Your task to perform on an android device: Go to Google maps Image 0: 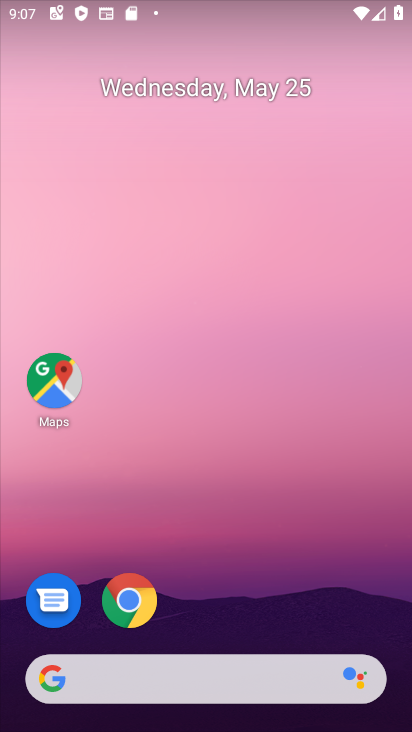
Step 0: drag from (276, 608) to (234, 46)
Your task to perform on an android device: Go to Google maps Image 1: 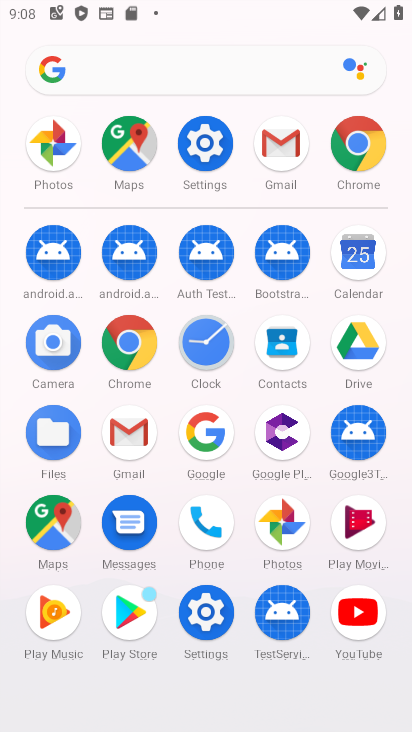
Step 1: drag from (16, 550) to (13, 242)
Your task to perform on an android device: Go to Google maps Image 2: 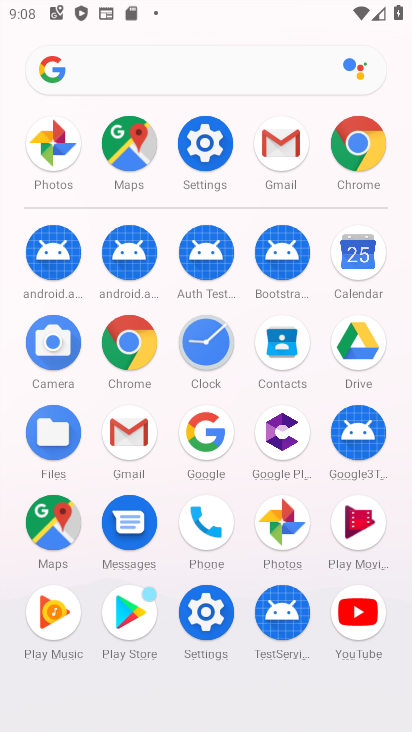
Step 2: click (49, 520)
Your task to perform on an android device: Go to Google maps Image 3: 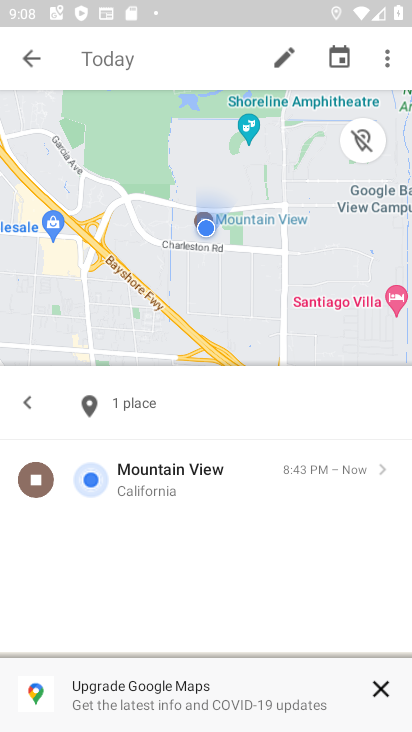
Step 3: click (34, 50)
Your task to perform on an android device: Go to Google maps Image 4: 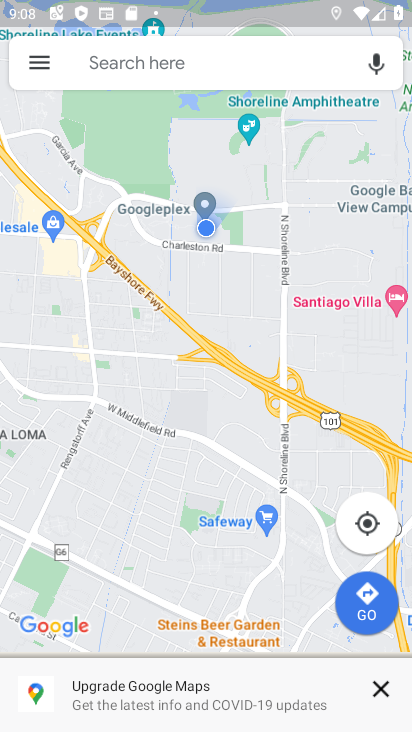
Step 4: task complete